Your task to perform on an android device: Open Google Chrome and open the bookmarks view Image 0: 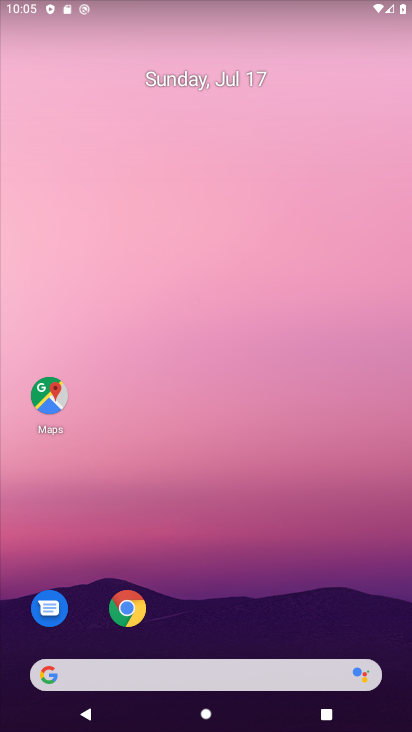
Step 0: click (127, 606)
Your task to perform on an android device: Open Google Chrome and open the bookmarks view Image 1: 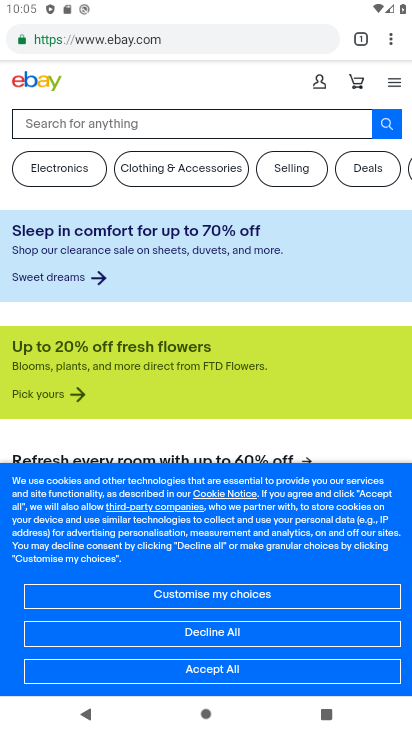
Step 1: click (386, 39)
Your task to perform on an android device: Open Google Chrome and open the bookmarks view Image 2: 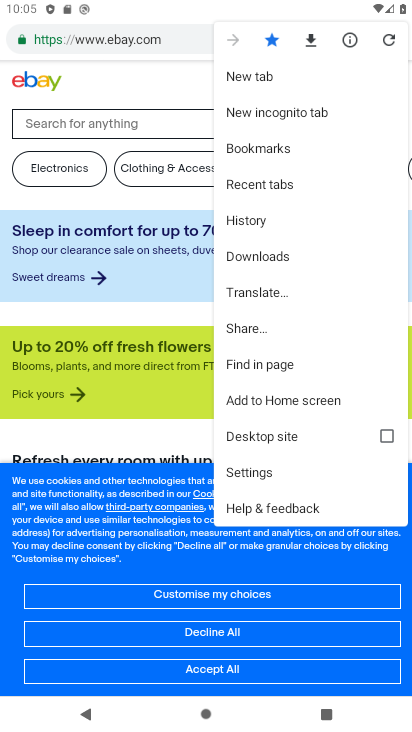
Step 2: click (263, 151)
Your task to perform on an android device: Open Google Chrome and open the bookmarks view Image 3: 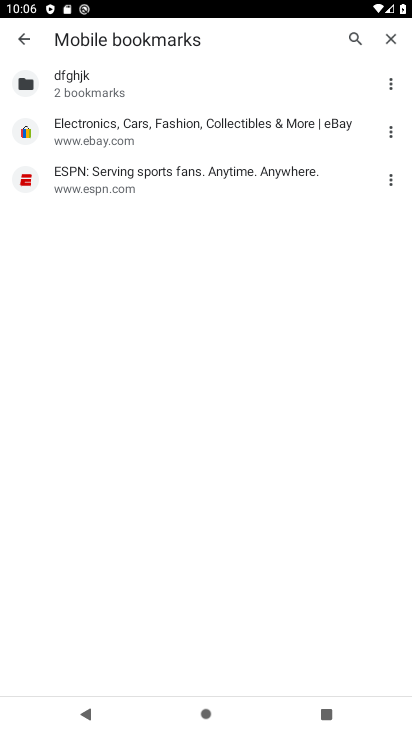
Step 3: click (112, 125)
Your task to perform on an android device: Open Google Chrome and open the bookmarks view Image 4: 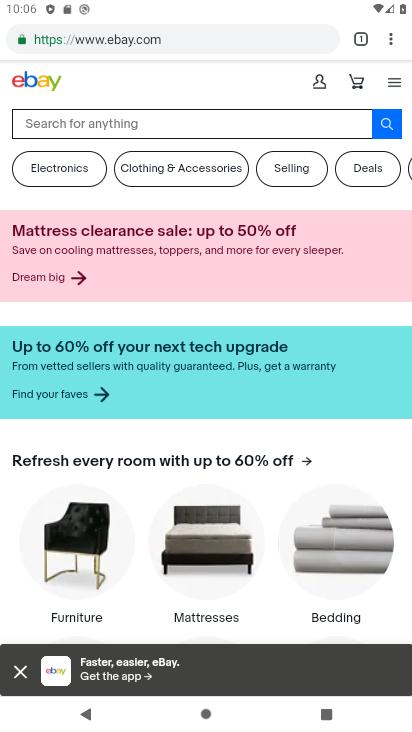
Step 4: task complete